Your task to perform on an android device: change the upload size in google photos Image 0: 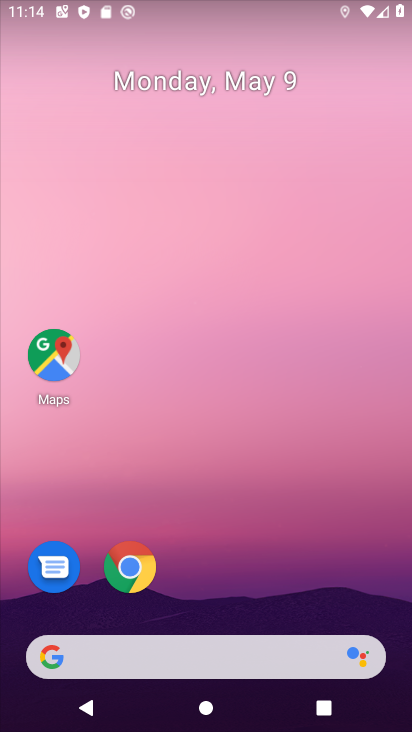
Step 0: drag from (242, 604) to (293, 14)
Your task to perform on an android device: change the upload size in google photos Image 1: 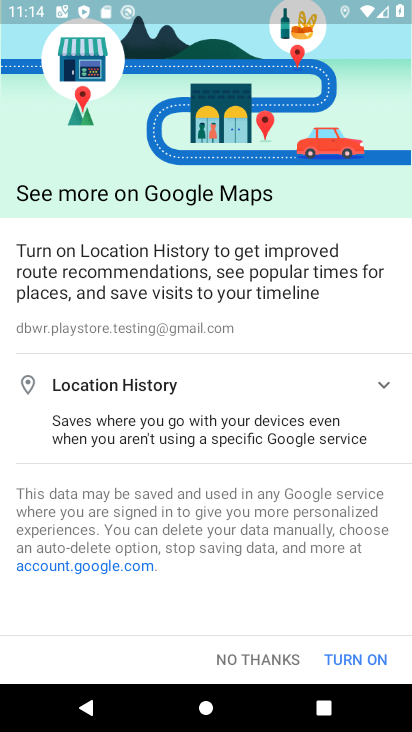
Step 1: press home button
Your task to perform on an android device: change the upload size in google photos Image 2: 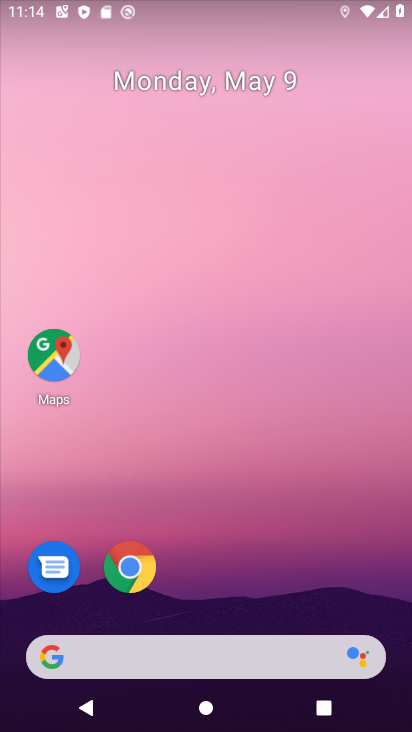
Step 2: drag from (219, 588) to (259, 0)
Your task to perform on an android device: change the upload size in google photos Image 3: 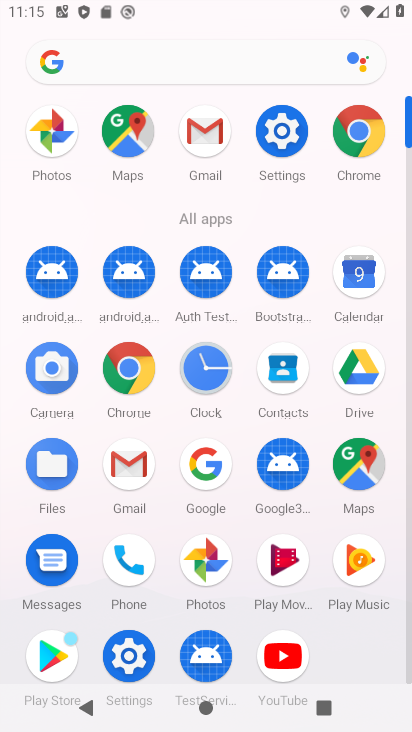
Step 3: click (211, 570)
Your task to perform on an android device: change the upload size in google photos Image 4: 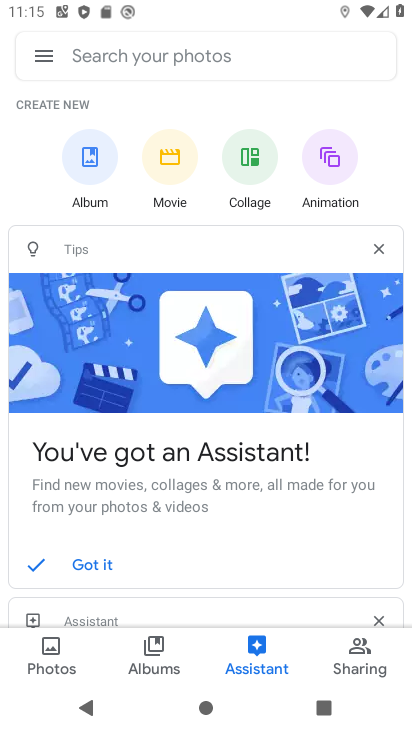
Step 4: click (53, 50)
Your task to perform on an android device: change the upload size in google photos Image 5: 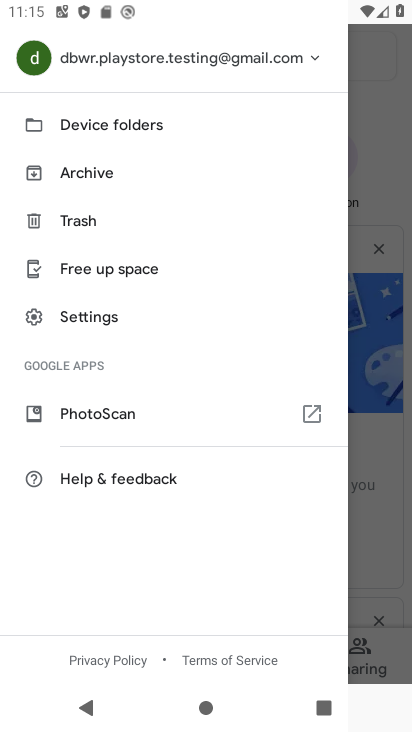
Step 5: click (97, 325)
Your task to perform on an android device: change the upload size in google photos Image 6: 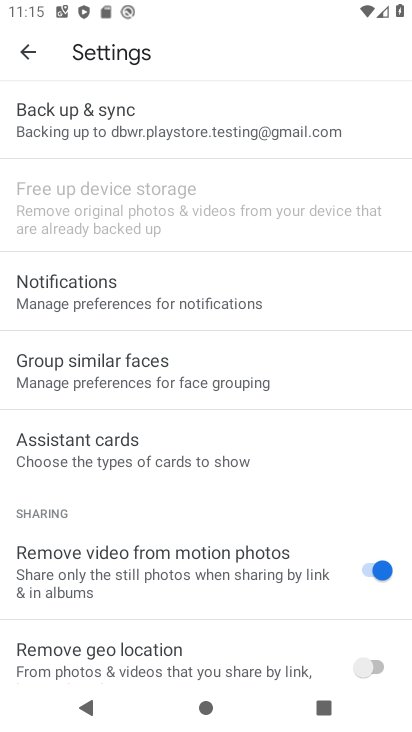
Step 6: click (165, 113)
Your task to perform on an android device: change the upload size in google photos Image 7: 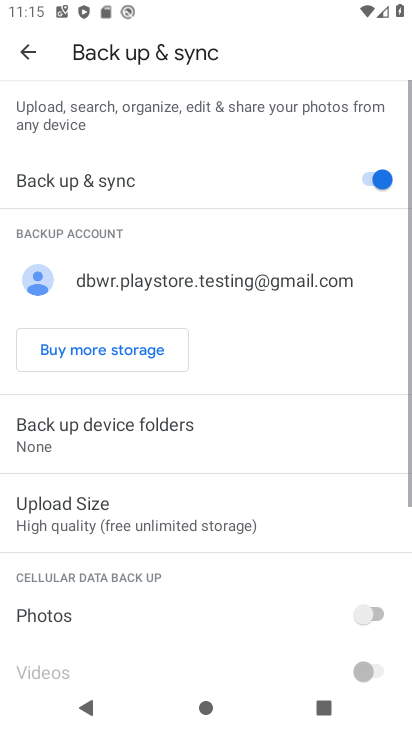
Step 7: drag from (190, 548) to (220, 273)
Your task to perform on an android device: change the upload size in google photos Image 8: 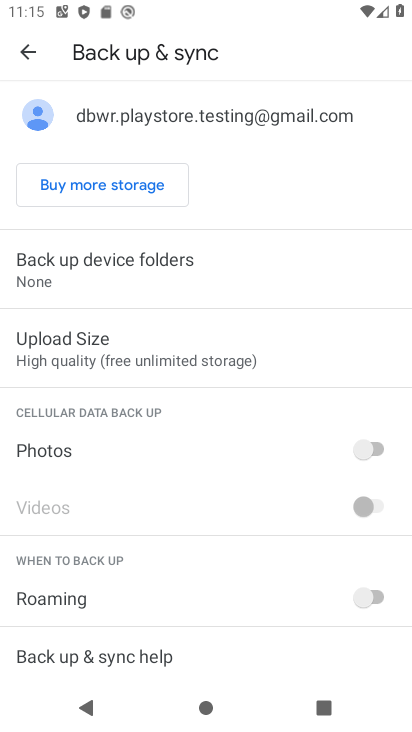
Step 8: click (159, 356)
Your task to perform on an android device: change the upload size in google photos Image 9: 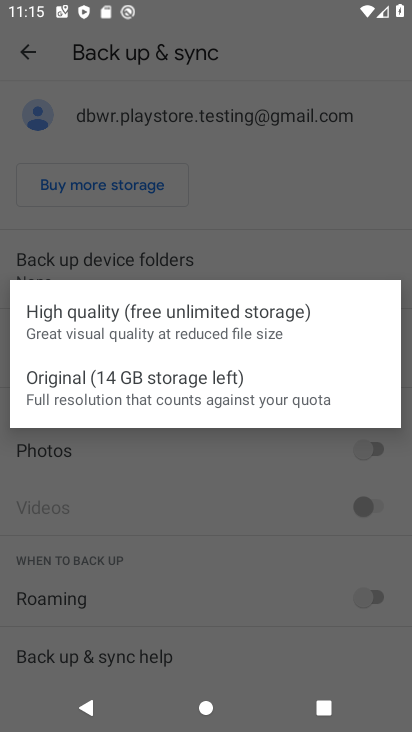
Step 9: click (128, 382)
Your task to perform on an android device: change the upload size in google photos Image 10: 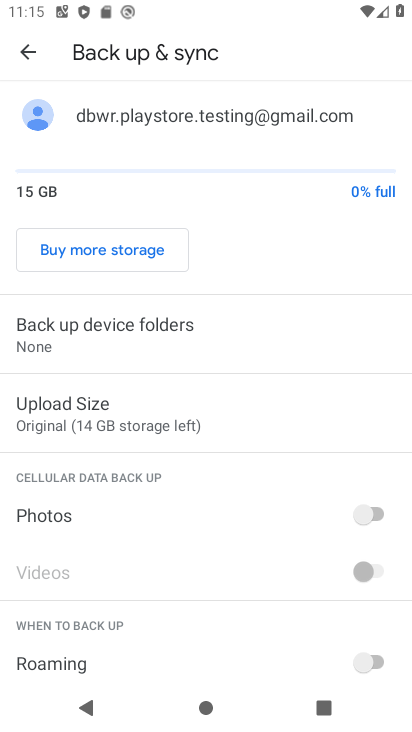
Step 10: task complete